Your task to perform on an android device: Open Youtube and go to the subscriptions tab Image 0: 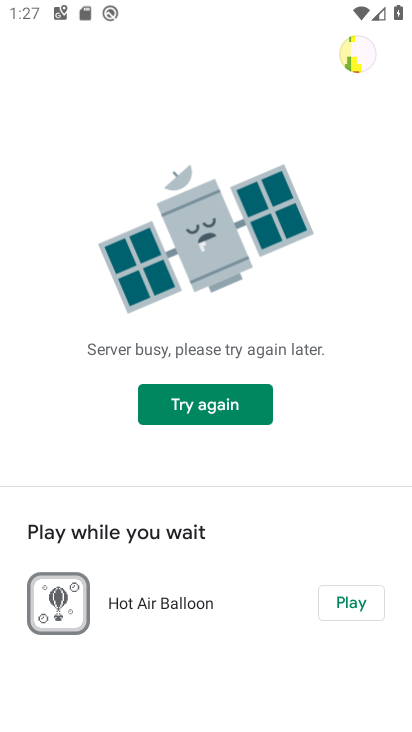
Step 0: press home button
Your task to perform on an android device: Open Youtube and go to the subscriptions tab Image 1: 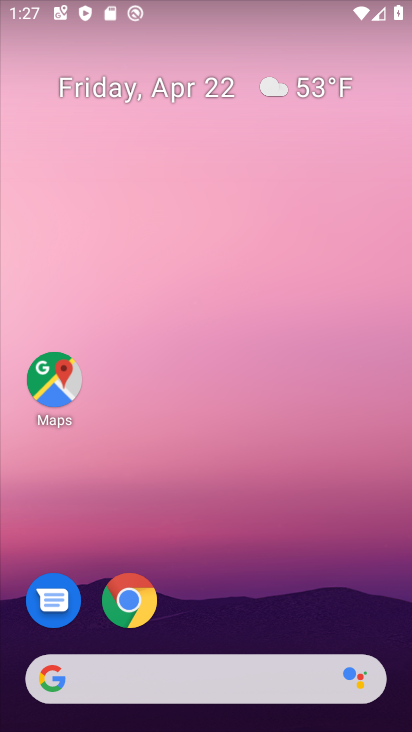
Step 1: drag from (215, 721) to (177, 190)
Your task to perform on an android device: Open Youtube and go to the subscriptions tab Image 2: 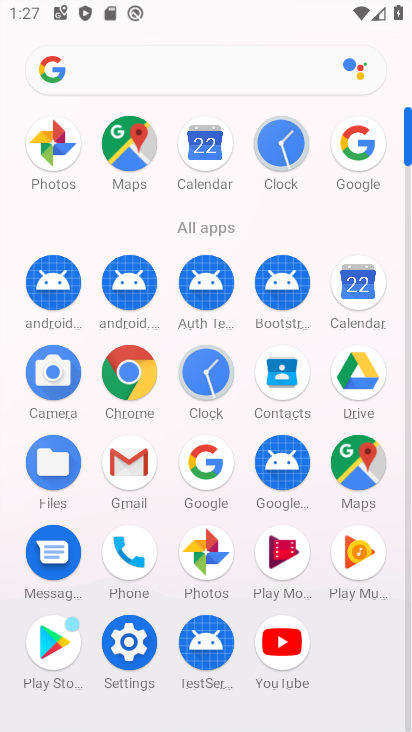
Step 2: click (272, 647)
Your task to perform on an android device: Open Youtube and go to the subscriptions tab Image 3: 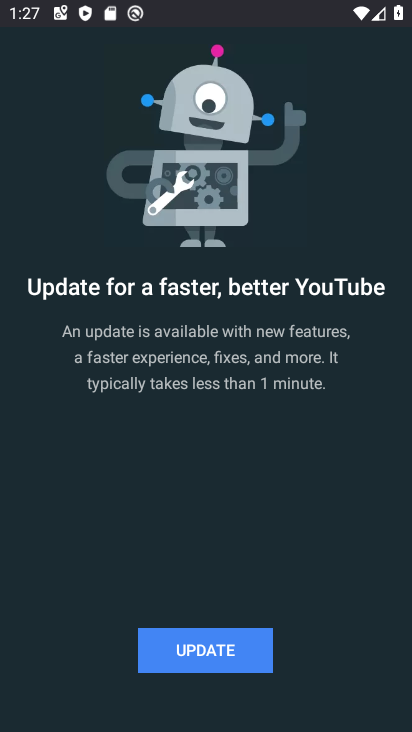
Step 3: task complete